Your task to perform on an android device: Search for asus rog on costco.com, select the first entry, and add it to the cart. Image 0: 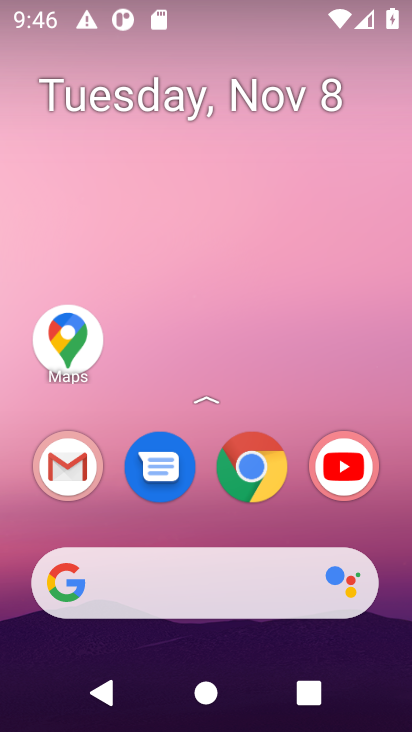
Step 0: click (235, 610)
Your task to perform on an android device: Search for asus rog on costco.com, select the first entry, and add it to the cart. Image 1: 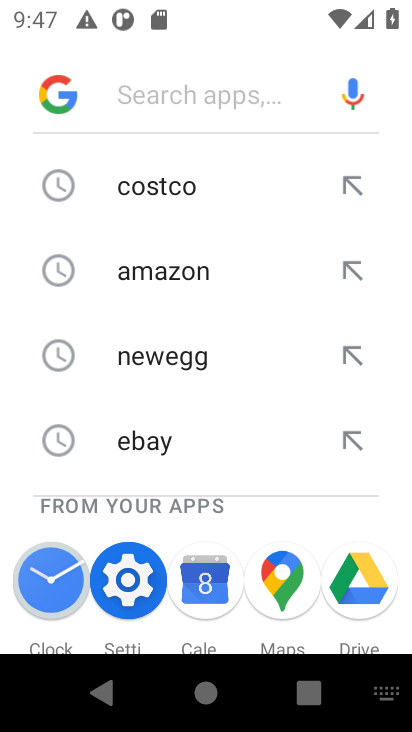
Step 1: click (178, 223)
Your task to perform on an android device: Search for asus rog on costco.com, select the first entry, and add it to the cart. Image 2: 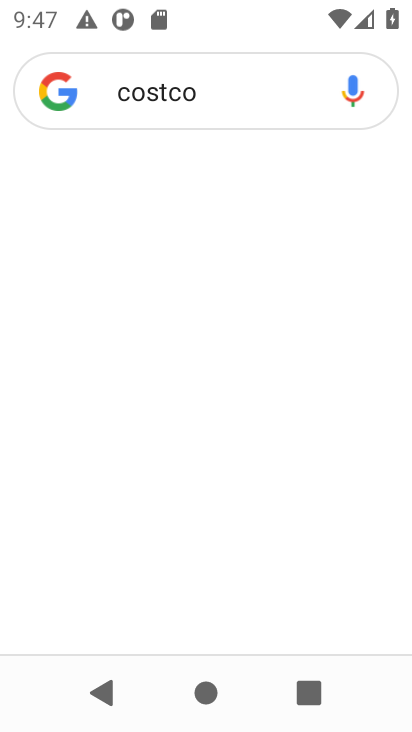
Step 2: task complete